Your task to perform on an android device: Open Yahoo.com Image 0: 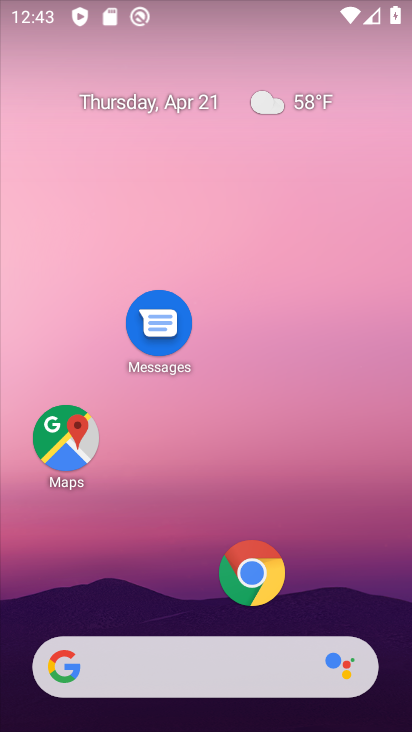
Step 0: click (252, 575)
Your task to perform on an android device: Open Yahoo.com Image 1: 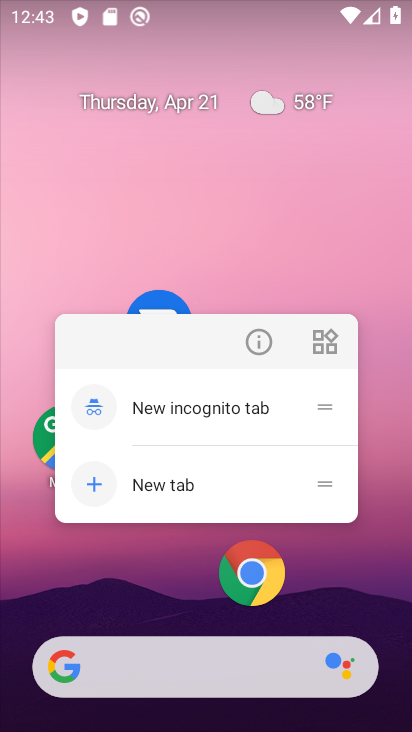
Step 1: click (252, 575)
Your task to perform on an android device: Open Yahoo.com Image 2: 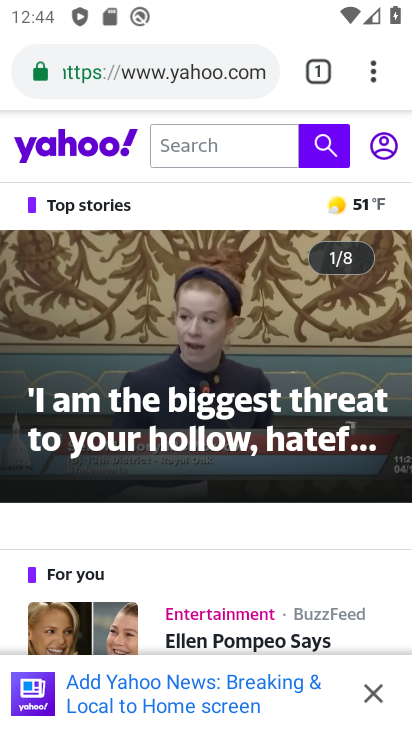
Step 2: task complete